Your task to perform on an android device: View the shopping cart on amazon.com. Add amazon basics triple a to the cart on amazon.com Image 0: 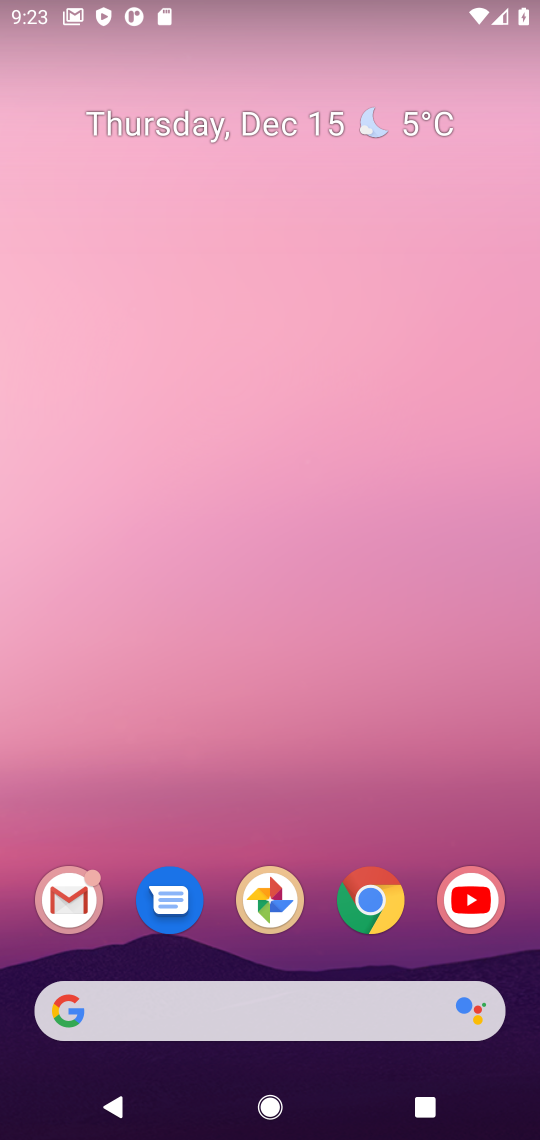
Step 0: click (377, 910)
Your task to perform on an android device: View the shopping cart on amazon.com. Add amazon basics triple a to the cart on amazon.com Image 1: 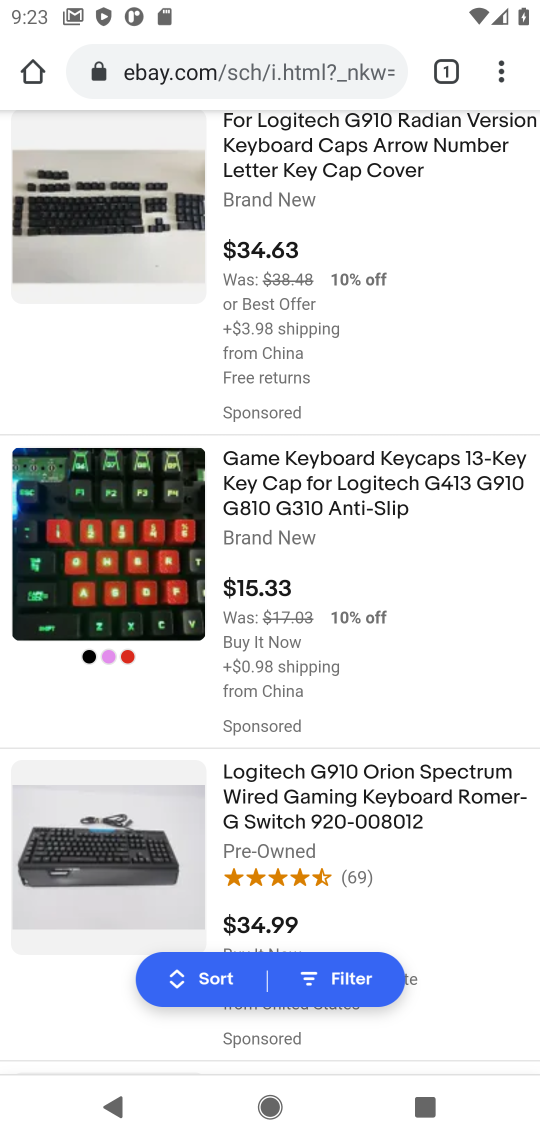
Step 1: click (148, 76)
Your task to perform on an android device: View the shopping cart on amazon.com. Add amazon basics triple a to the cart on amazon.com Image 2: 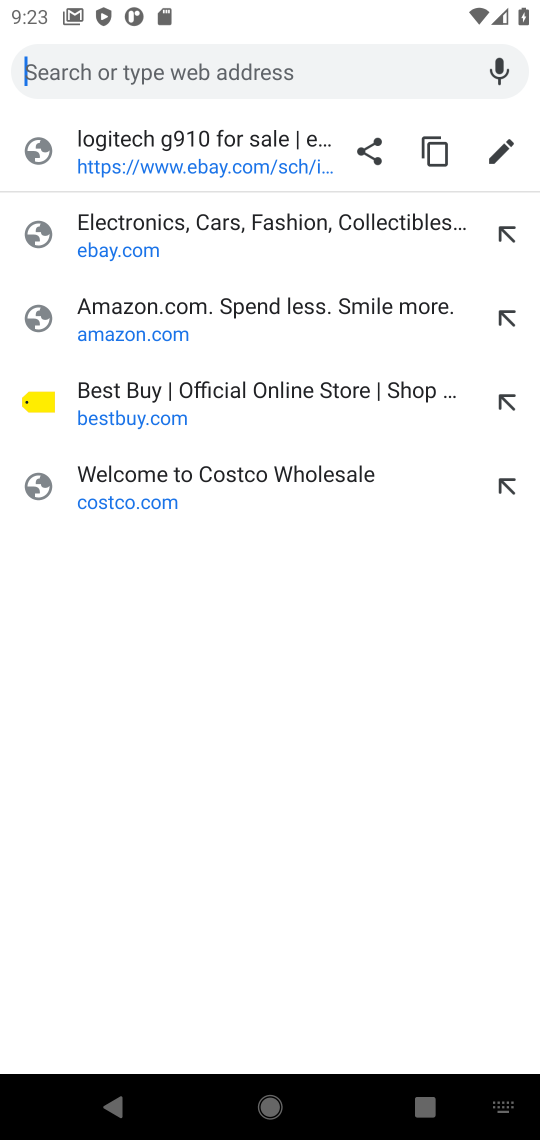
Step 2: type "amazon.com"
Your task to perform on an android device: View the shopping cart on amazon.com. Add amazon basics triple a to the cart on amazon.com Image 3: 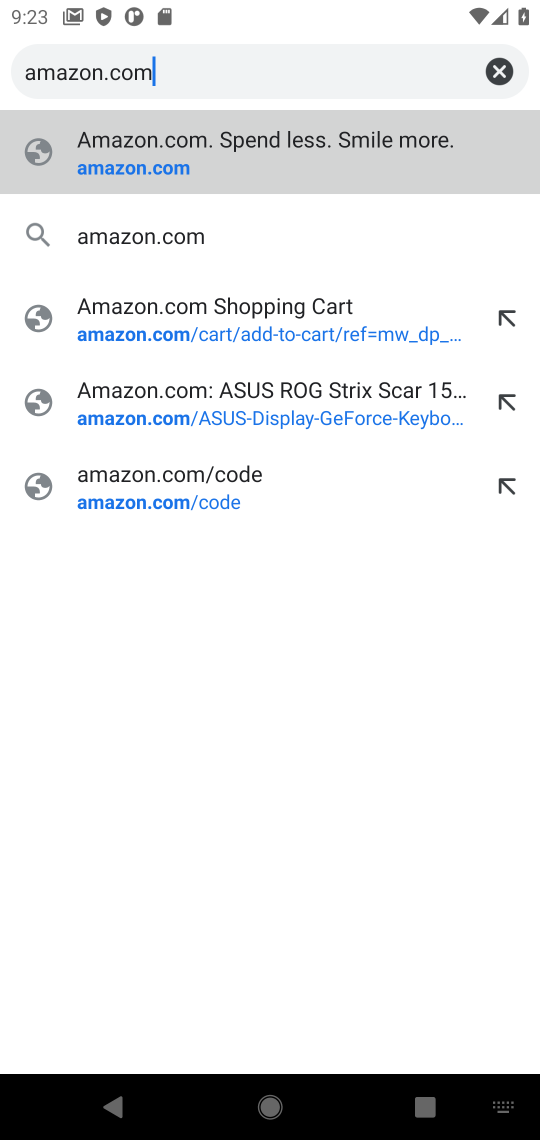
Step 3: press enter
Your task to perform on an android device: View the shopping cart on amazon.com. Add amazon basics triple a to the cart on amazon.com Image 4: 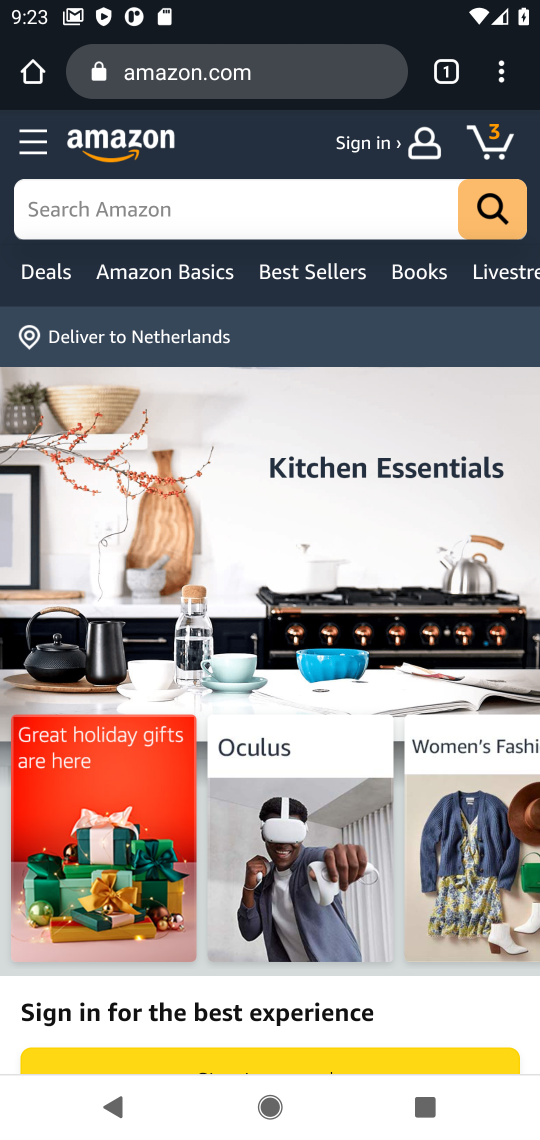
Step 4: drag from (243, 999) to (430, 1128)
Your task to perform on an android device: View the shopping cart on amazon.com. Add amazon basics triple a to the cart on amazon.com Image 5: 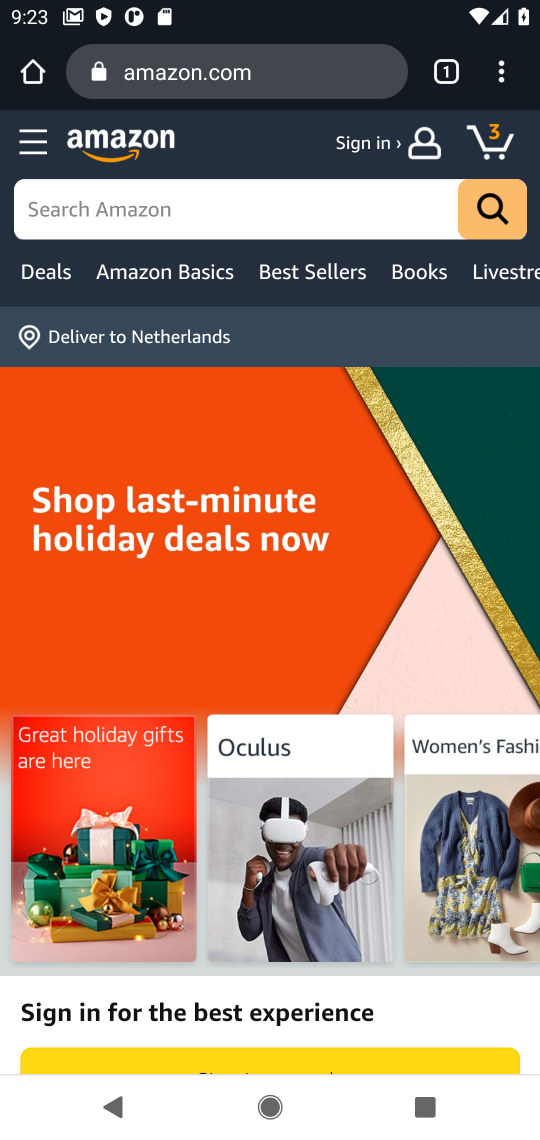
Step 5: click (489, 149)
Your task to perform on an android device: View the shopping cart on amazon.com. Add amazon basics triple a to the cart on amazon.com Image 6: 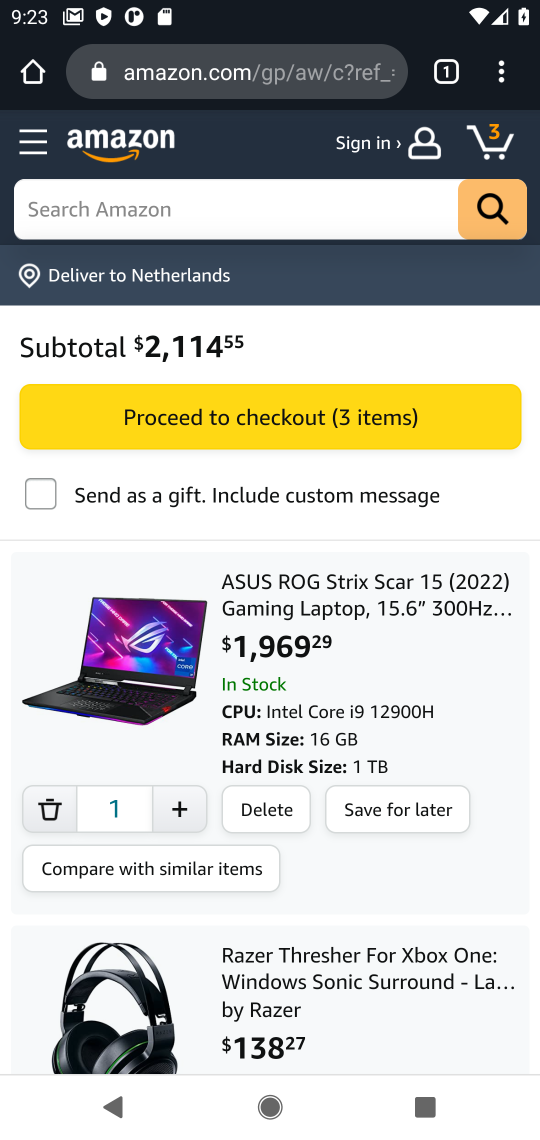
Step 6: click (194, 203)
Your task to perform on an android device: View the shopping cart on amazon.com. Add amazon basics triple a to the cart on amazon.com Image 7: 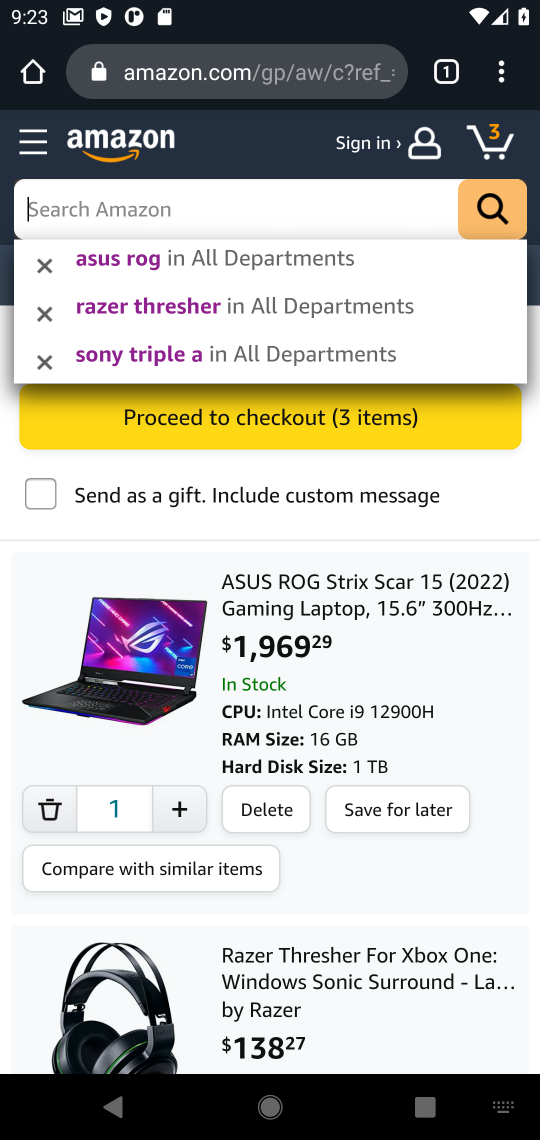
Step 7: type "amazon basics triple a"
Your task to perform on an android device: View the shopping cart on amazon.com. Add amazon basics triple a to the cart on amazon.com Image 8: 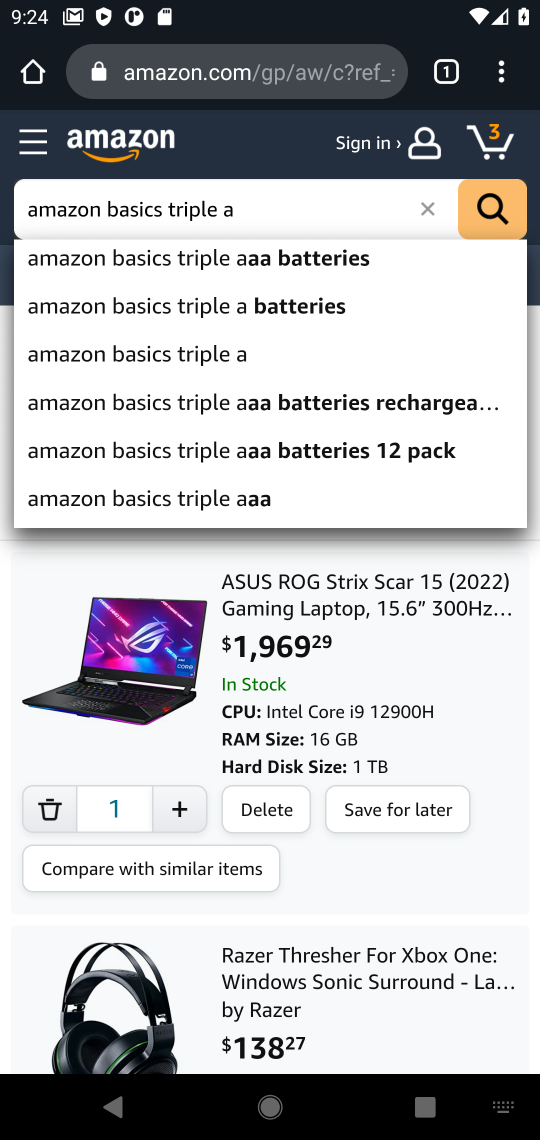
Step 8: press enter
Your task to perform on an android device: View the shopping cart on amazon.com. Add amazon basics triple a to the cart on amazon.com Image 9: 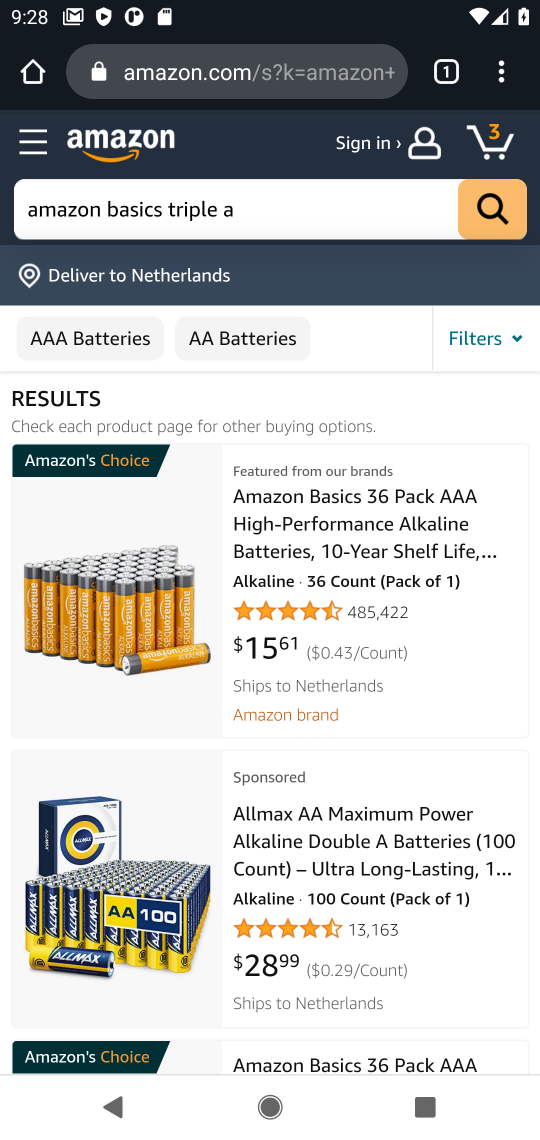
Step 9: click (304, 499)
Your task to perform on an android device: View the shopping cart on amazon.com. Add amazon basics triple a to the cart on amazon.com Image 10: 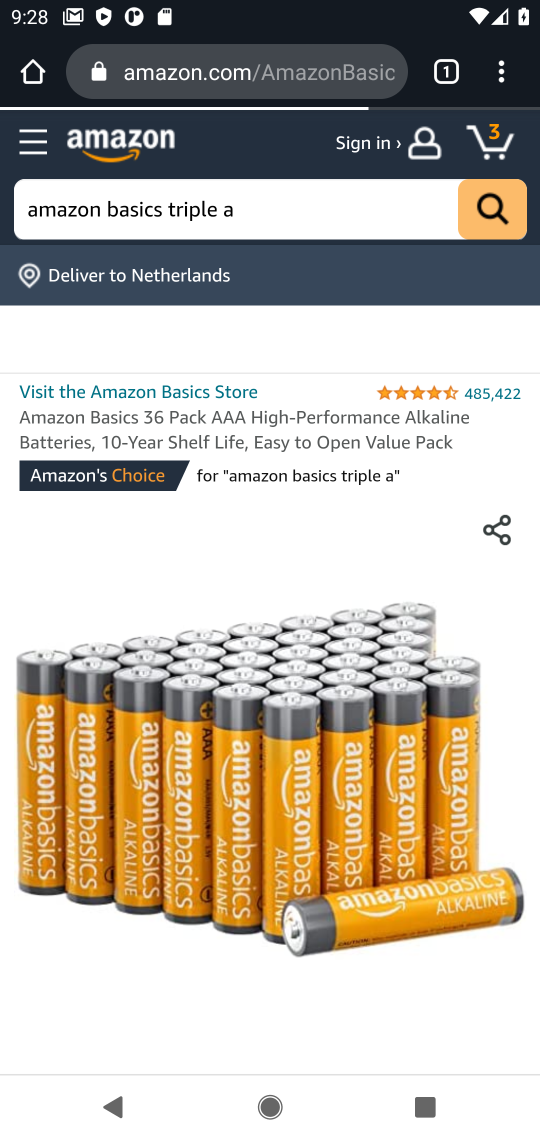
Step 10: drag from (235, 800) to (522, 306)
Your task to perform on an android device: View the shopping cart on amazon.com. Add amazon basics triple a to the cart on amazon.com Image 11: 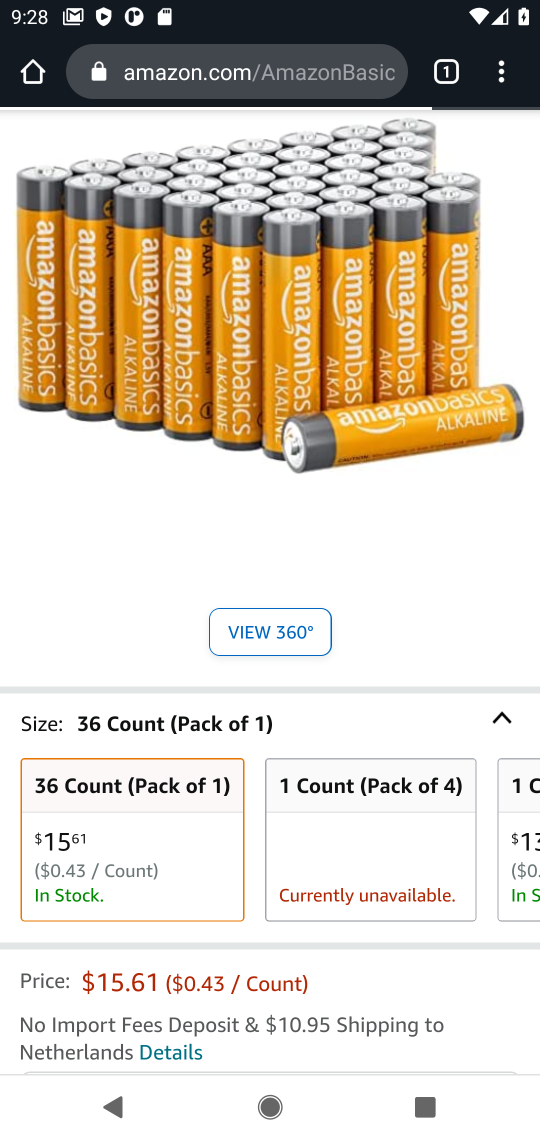
Step 11: drag from (314, 1031) to (489, 369)
Your task to perform on an android device: View the shopping cart on amazon.com. Add amazon basics triple a to the cart on amazon.com Image 12: 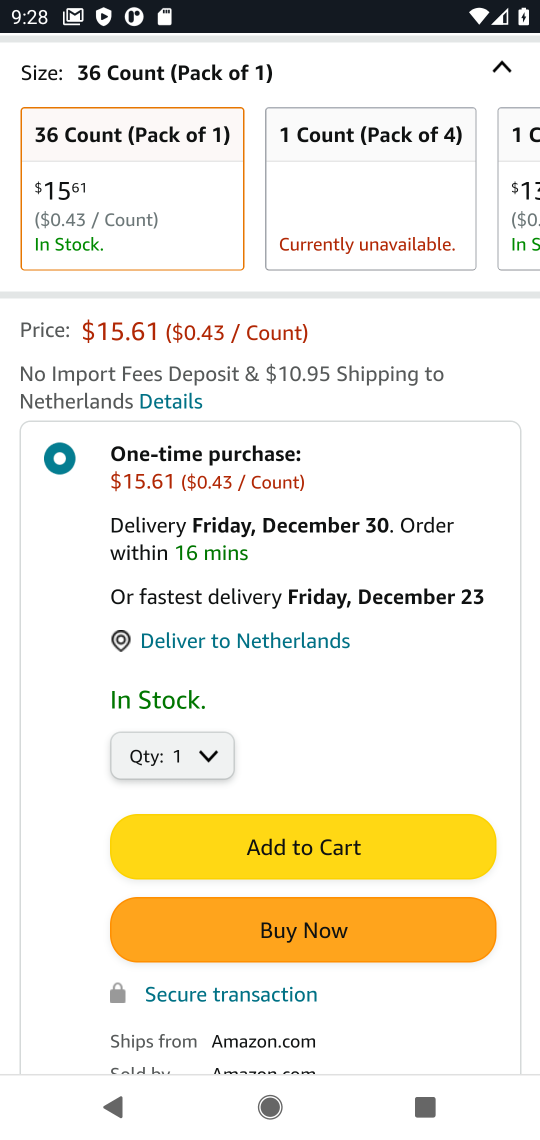
Step 12: click (321, 846)
Your task to perform on an android device: View the shopping cart on amazon.com. Add amazon basics triple a to the cart on amazon.com Image 13: 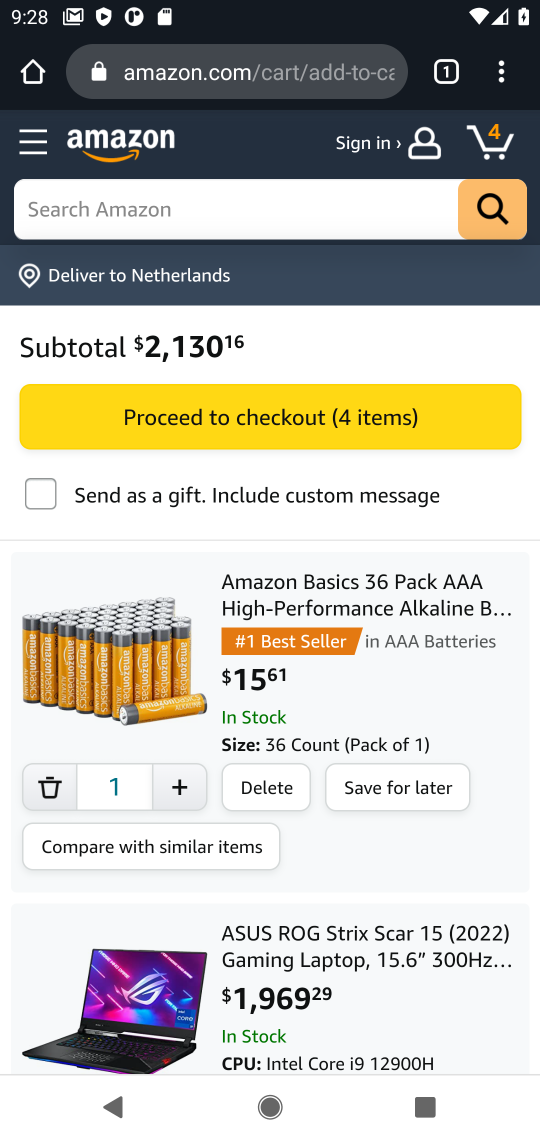
Step 13: task complete